Your task to perform on an android device: move a message to another label in the gmail app Image 0: 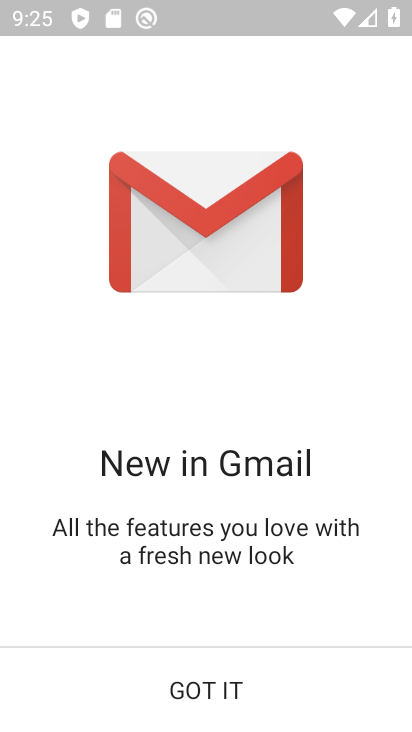
Step 0: press home button
Your task to perform on an android device: move a message to another label in the gmail app Image 1: 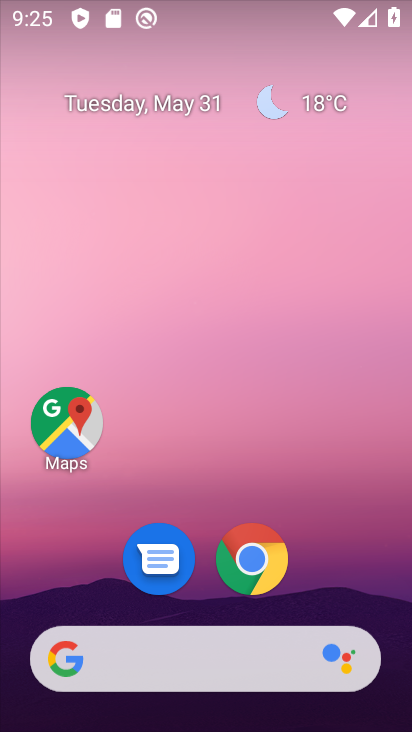
Step 1: drag from (345, 537) to (356, 115)
Your task to perform on an android device: move a message to another label in the gmail app Image 2: 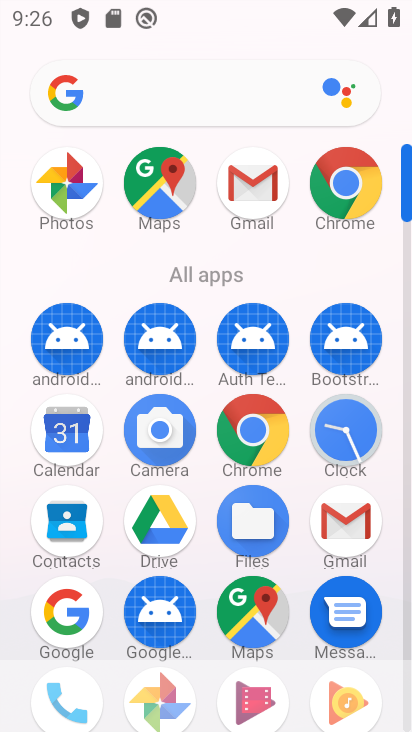
Step 2: click (339, 519)
Your task to perform on an android device: move a message to another label in the gmail app Image 3: 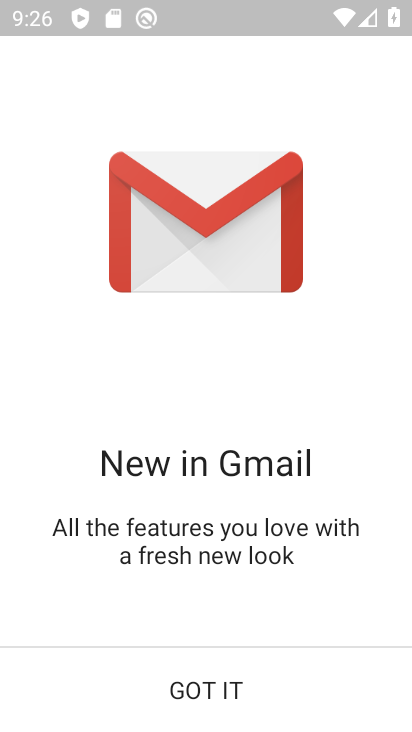
Step 3: click (217, 688)
Your task to perform on an android device: move a message to another label in the gmail app Image 4: 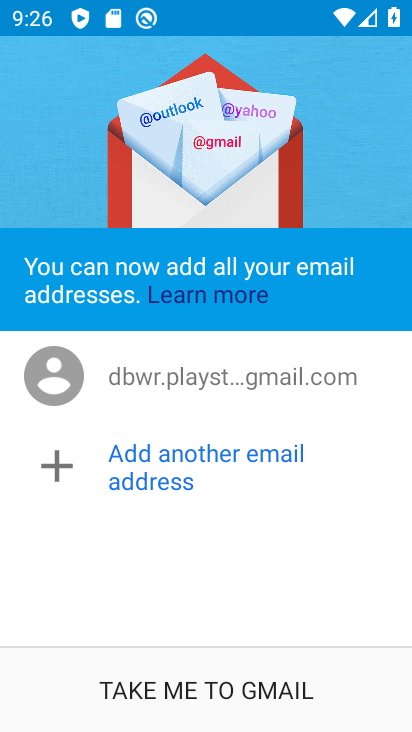
Step 4: click (217, 688)
Your task to perform on an android device: move a message to another label in the gmail app Image 5: 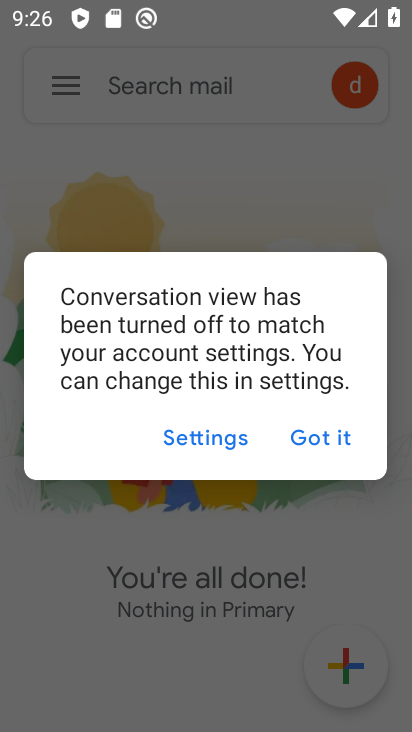
Step 5: click (318, 430)
Your task to perform on an android device: move a message to another label in the gmail app Image 6: 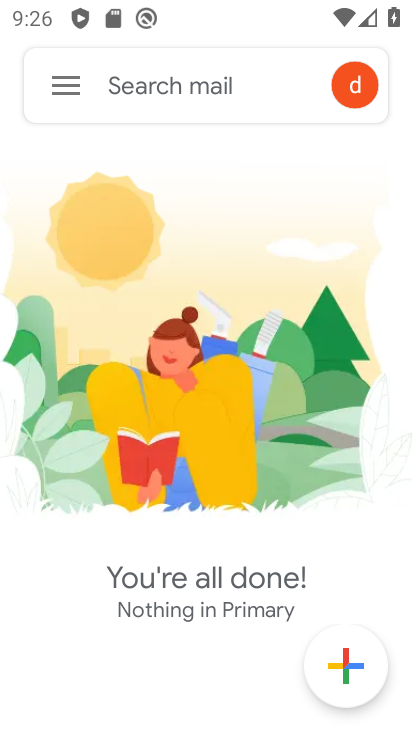
Step 6: click (77, 106)
Your task to perform on an android device: move a message to another label in the gmail app Image 7: 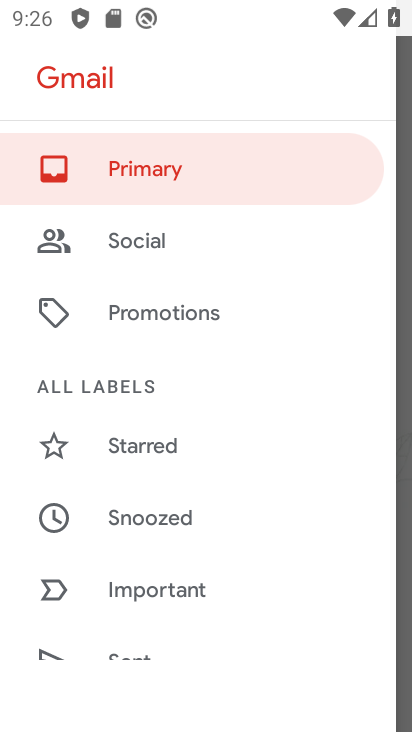
Step 7: drag from (177, 510) to (218, 24)
Your task to perform on an android device: move a message to another label in the gmail app Image 8: 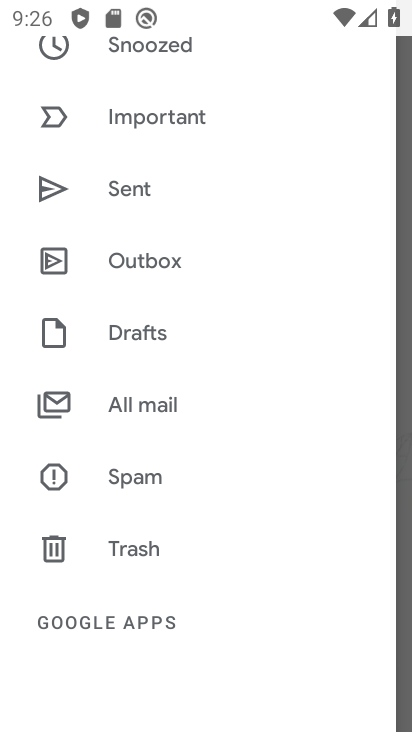
Step 8: click (144, 405)
Your task to perform on an android device: move a message to another label in the gmail app Image 9: 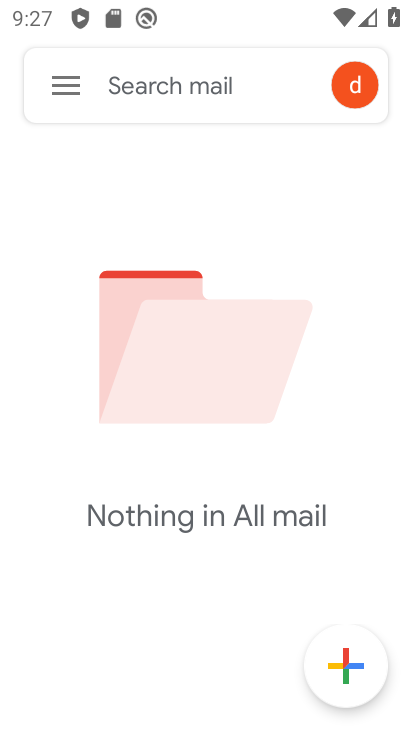
Step 9: task complete